Your task to perform on an android device: star an email in the gmail app Image 0: 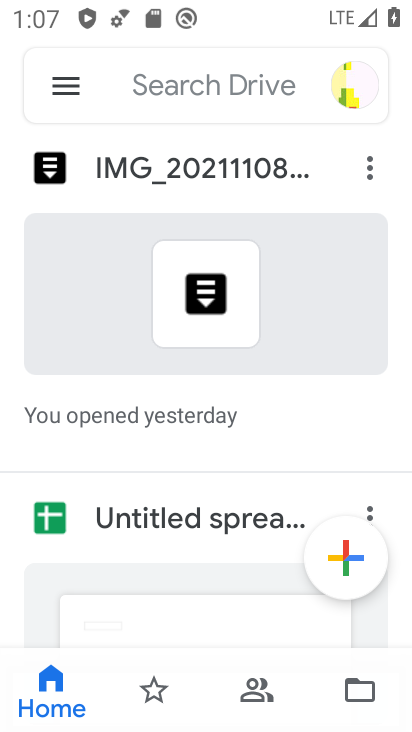
Step 0: press home button
Your task to perform on an android device: star an email in the gmail app Image 1: 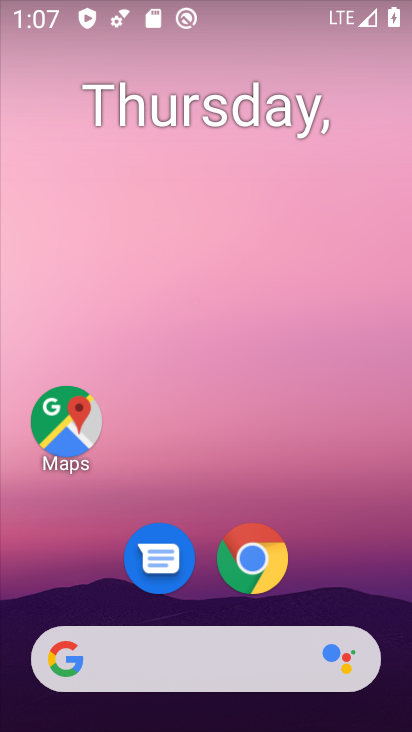
Step 1: drag from (355, 530) to (323, 139)
Your task to perform on an android device: star an email in the gmail app Image 2: 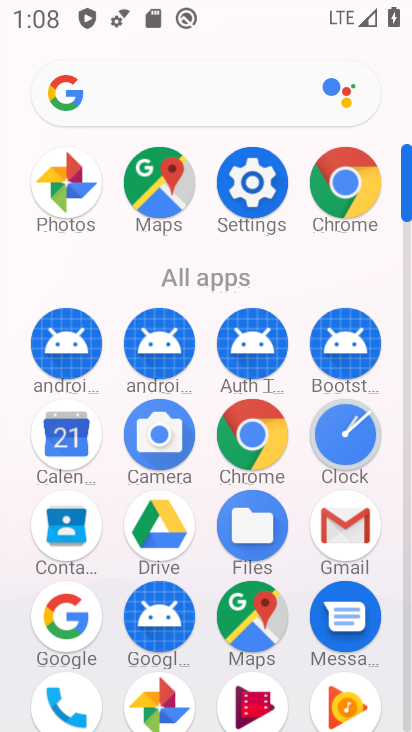
Step 2: click (343, 522)
Your task to perform on an android device: star an email in the gmail app Image 3: 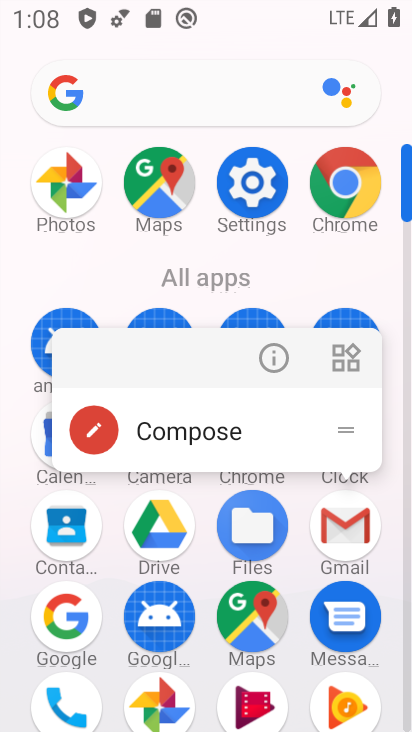
Step 3: click (324, 524)
Your task to perform on an android device: star an email in the gmail app Image 4: 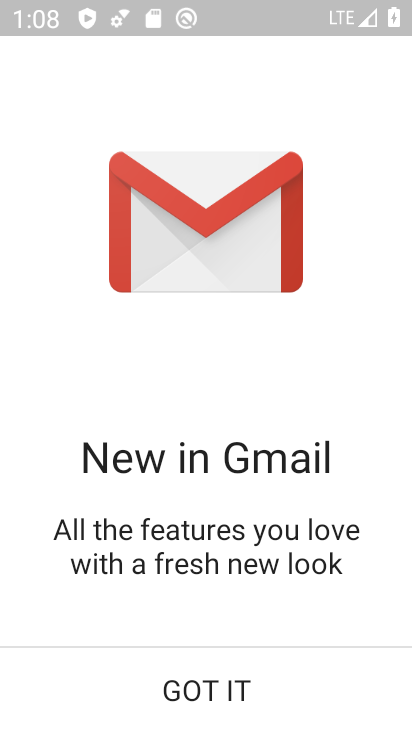
Step 4: click (252, 709)
Your task to perform on an android device: star an email in the gmail app Image 5: 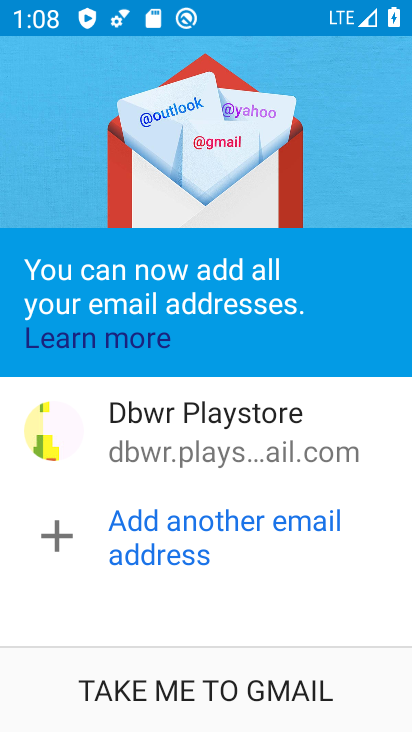
Step 5: click (222, 689)
Your task to perform on an android device: star an email in the gmail app Image 6: 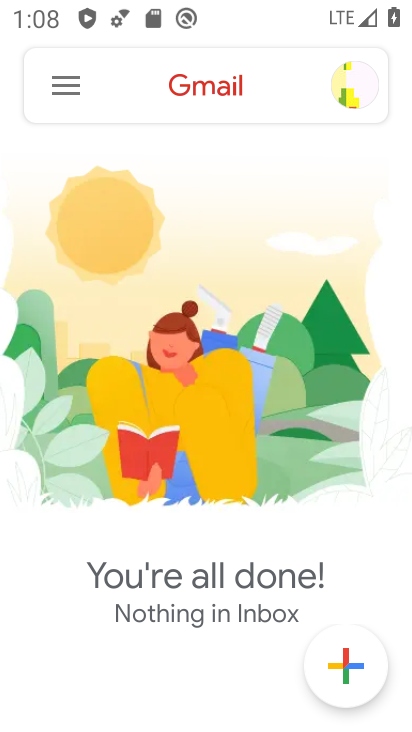
Step 6: click (53, 93)
Your task to perform on an android device: star an email in the gmail app Image 7: 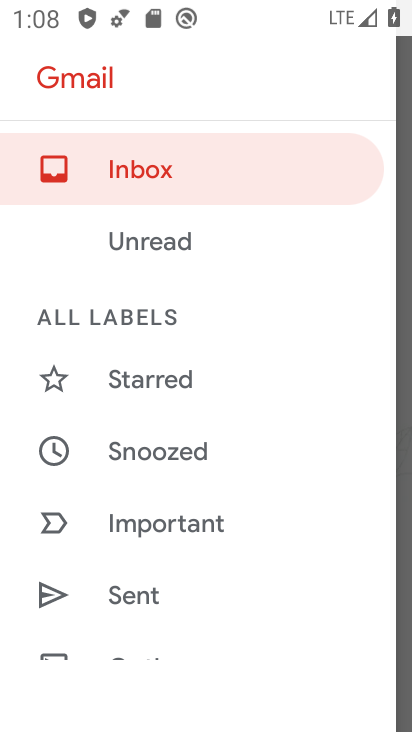
Step 7: task complete